Your task to perform on an android device: turn off notifications settings in the gmail app Image 0: 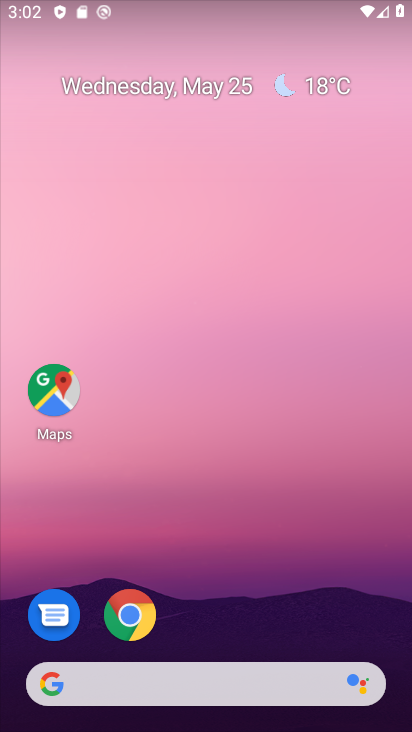
Step 0: drag from (271, 681) to (203, 212)
Your task to perform on an android device: turn off notifications settings in the gmail app Image 1: 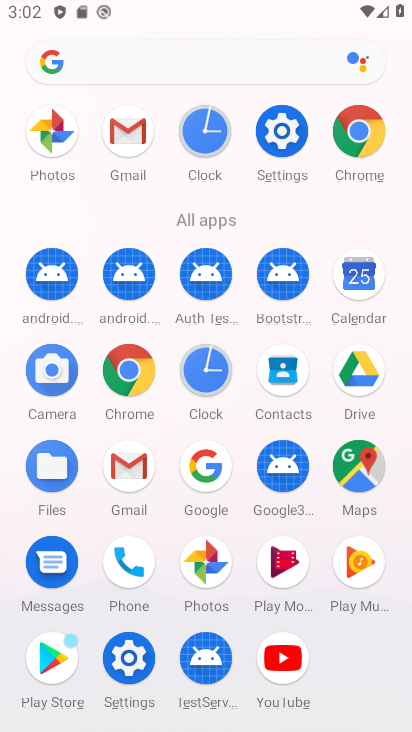
Step 1: click (137, 460)
Your task to perform on an android device: turn off notifications settings in the gmail app Image 2: 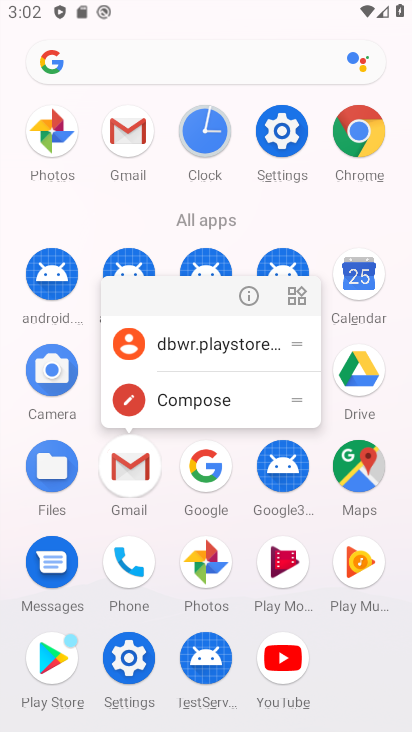
Step 2: click (137, 460)
Your task to perform on an android device: turn off notifications settings in the gmail app Image 3: 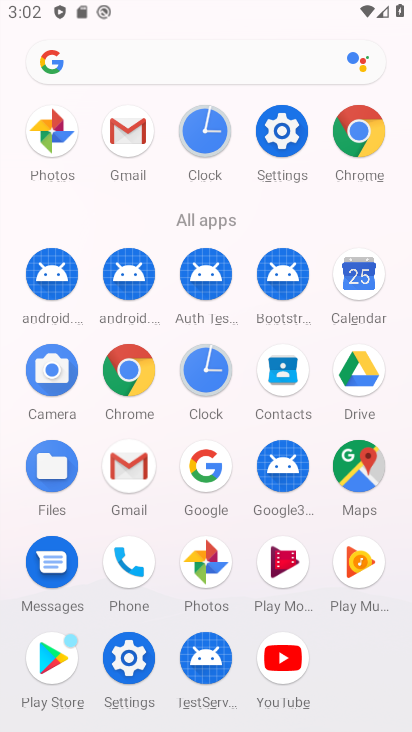
Step 3: click (137, 460)
Your task to perform on an android device: turn off notifications settings in the gmail app Image 4: 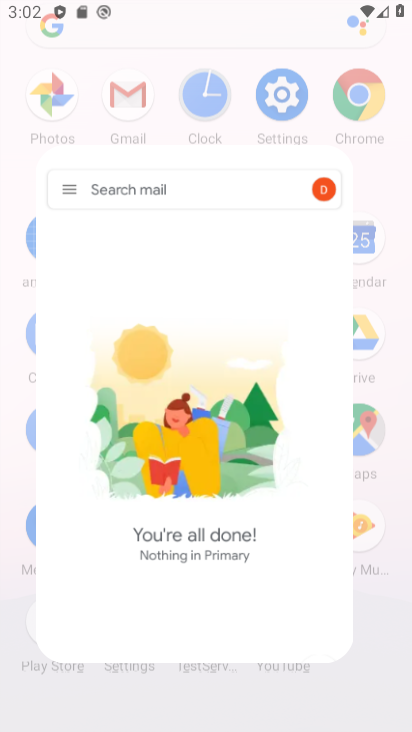
Step 4: click (135, 460)
Your task to perform on an android device: turn off notifications settings in the gmail app Image 5: 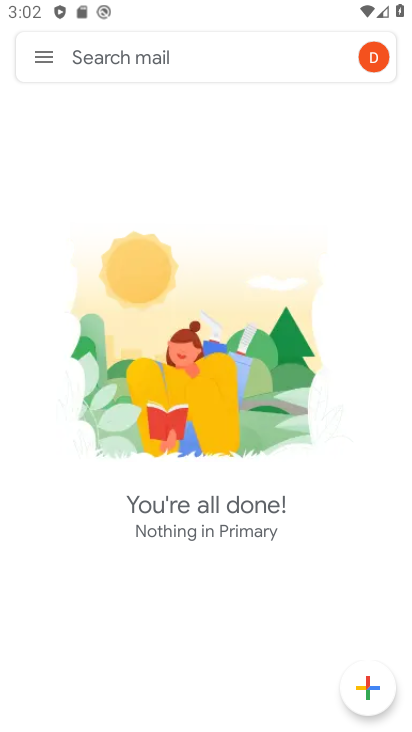
Step 5: click (40, 48)
Your task to perform on an android device: turn off notifications settings in the gmail app Image 6: 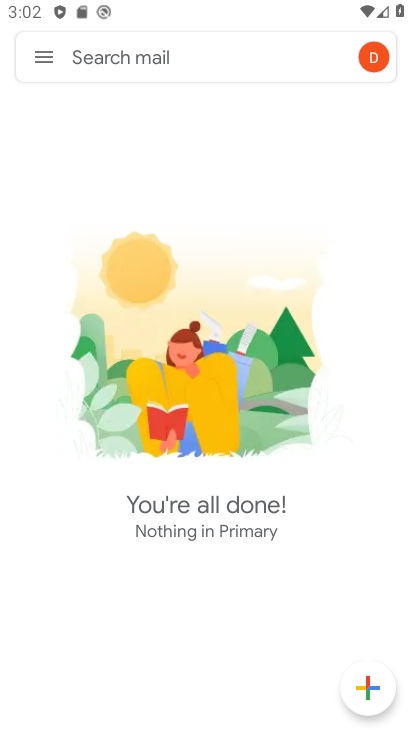
Step 6: click (44, 62)
Your task to perform on an android device: turn off notifications settings in the gmail app Image 7: 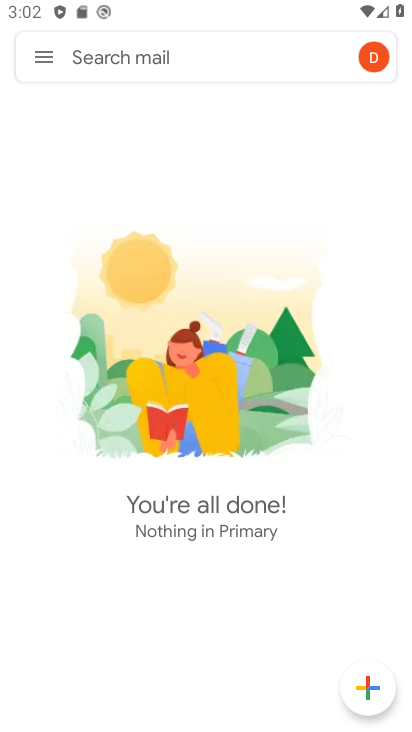
Step 7: click (50, 56)
Your task to perform on an android device: turn off notifications settings in the gmail app Image 8: 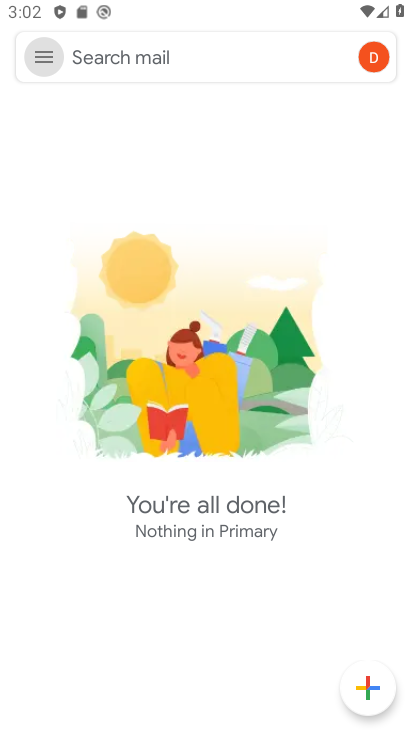
Step 8: click (50, 68)
Your task to perform on an android device: turn off notifications settings in the gmail app Image 9: 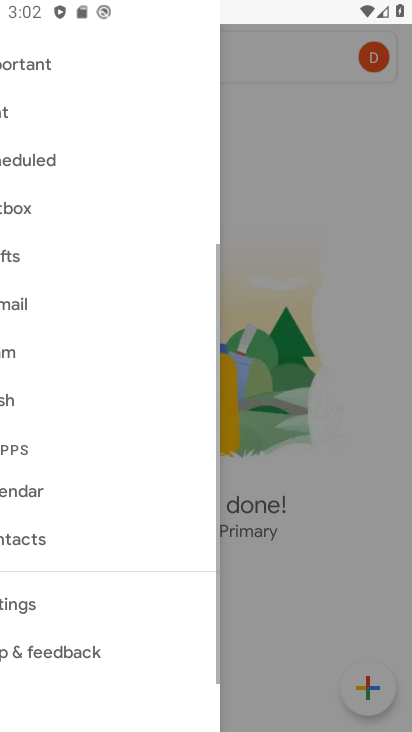
Step 9: click (50, 62)
Your task to perform on an android device: turn off notifications settings in the gmail app Image 10: 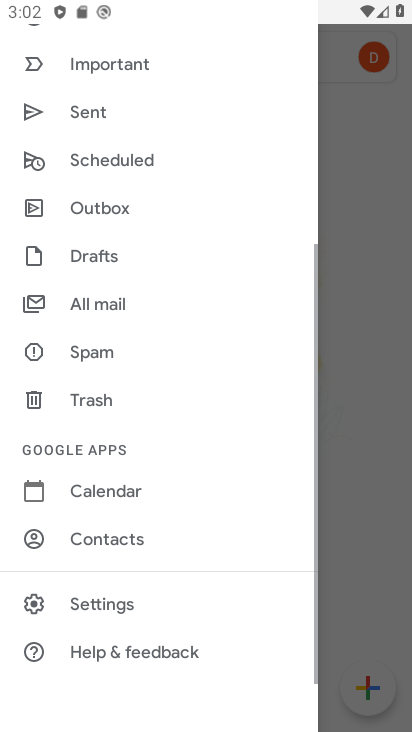
Step 10: drag from (100, 167) to (128, 315)
Your task to perform on an android device: turn off notifications settings in the gmail app Image 11: 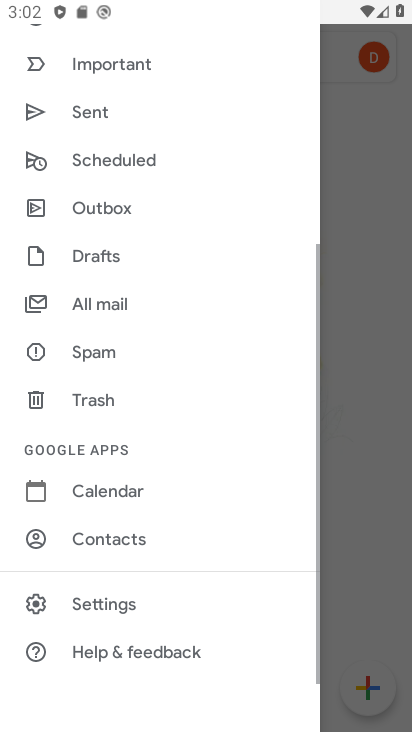
Step 11: drag from (125, 490) to (126, 151)
Your task to perform on an android device: turn off notifications settings in the gmail app Image 12: 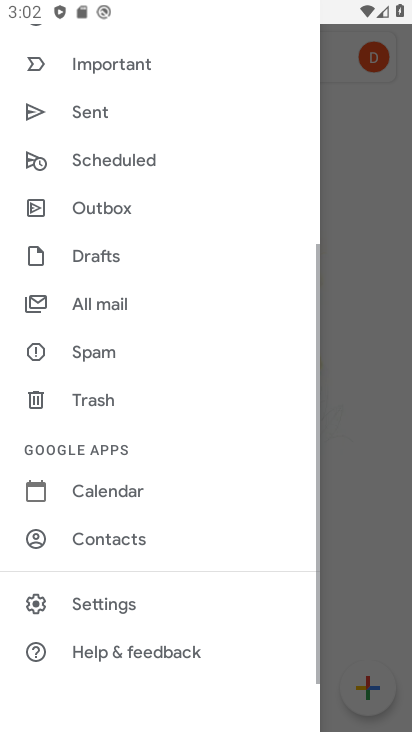
Step 12: click (99, 604)
Your task to perform on an android device: turn off notifications settings in the gmail app Image 13: 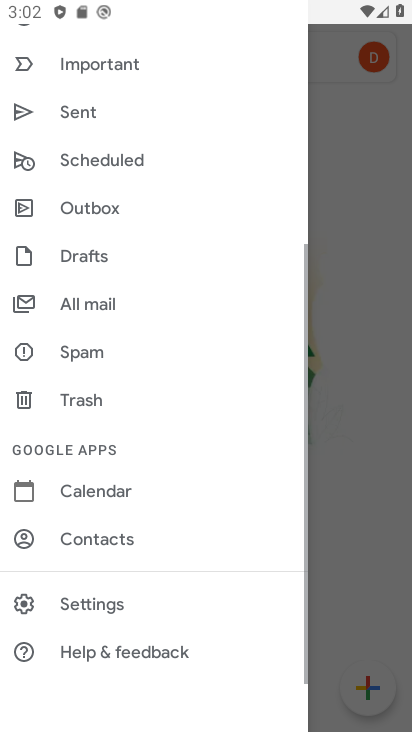
Step 13: click (99, 606)
Your task to perform on an android device: turn off notifications settings in the gmail app Image 14: 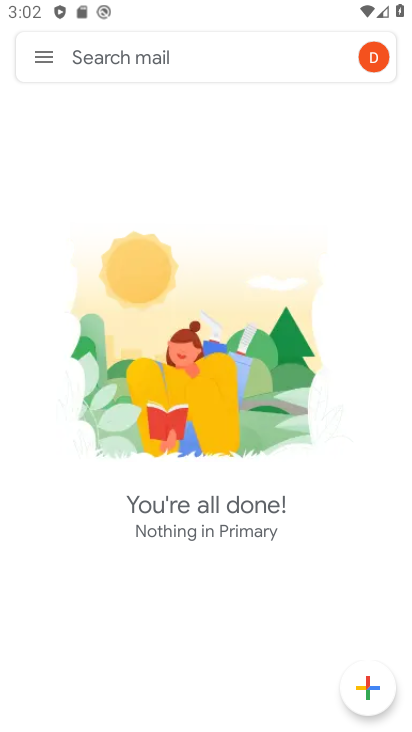
Step 14: click (97, 612)
Your task to perform on an android device: turn off notifications settings in the gmail app Image 15: 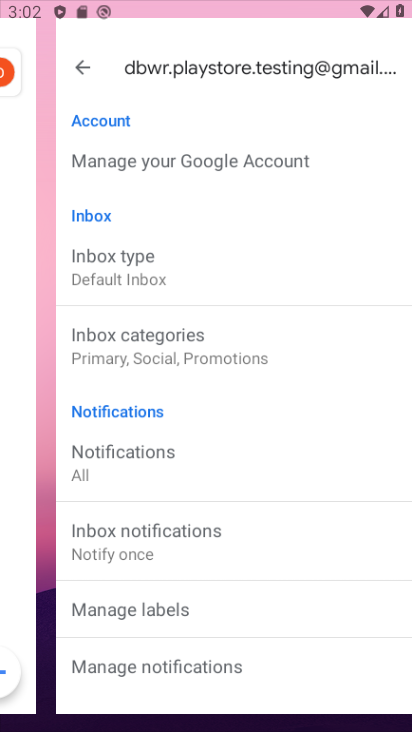
Step 15: click (97, 612)
Your task to perform on an android device: turn off notifications settings in the gmail app Image 16: 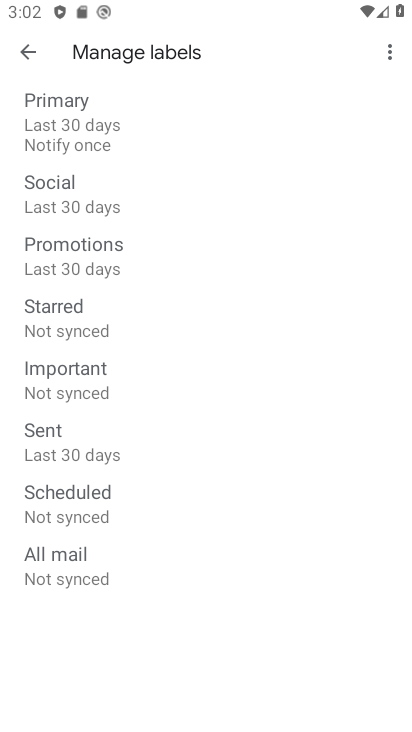
Step 16: click (30, 54)
Your task to perform on an android device: turn off notifications settings in the gmail app Image 17: 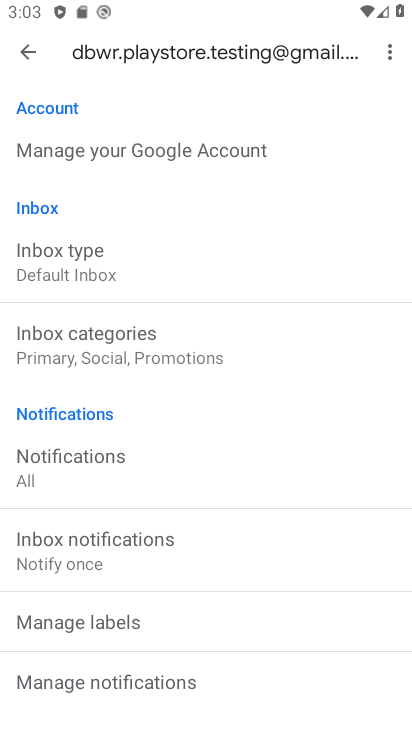
Step 17: click (67, 456)
Your task to perform on an android device: turn off notifications settings in the gmail app Image 18: 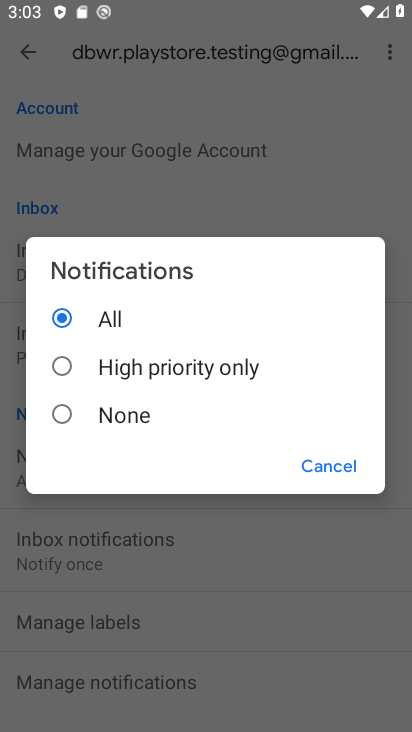
Step 18: click (53, 370)
Your task to perform on an android device: turn off notifications settings in the gmail app Image 19: 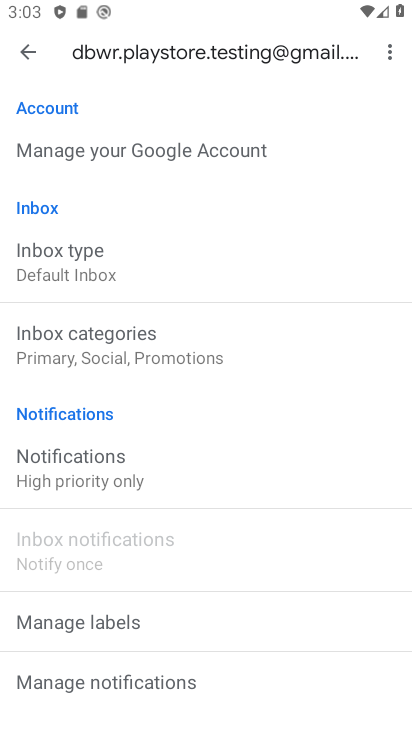
Step 19: task complete